Your task to perform on an android device: Open Google Chrome and click the shortcut for Amazon.com Image 0: 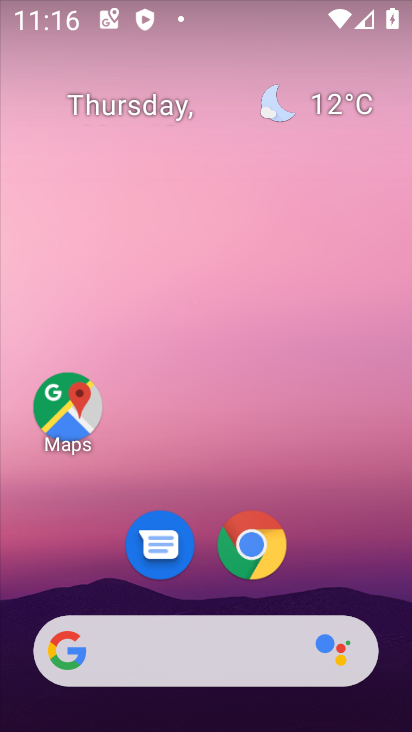
Step 0: click (227, 549)
Your task to perform on an android device: Open Google Chrome and click the shortcut for Amazon.com Image 1: 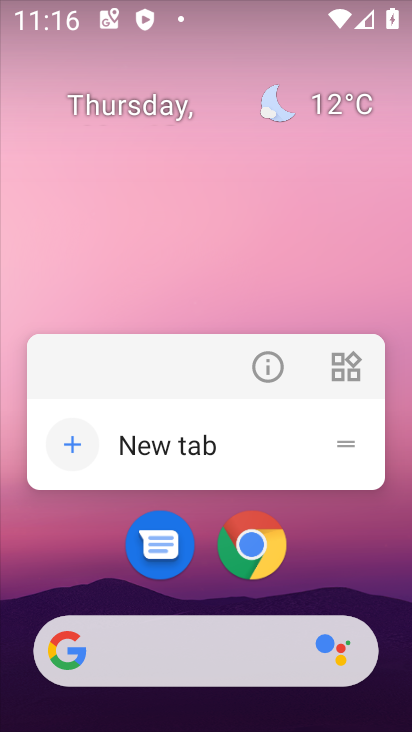
Step 1: click (243, 554)
Your task to perform on an android device: Open Google Chrome and click the shortcut for Amazon.com Image 2: 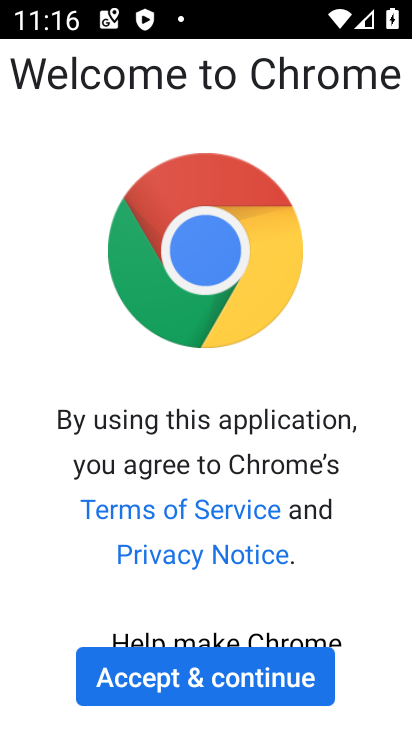
Step 2: click (249, 678)
Your task to perform on an android device: Open Google Chrome and click the shortcut for Amazon.com Image 3: 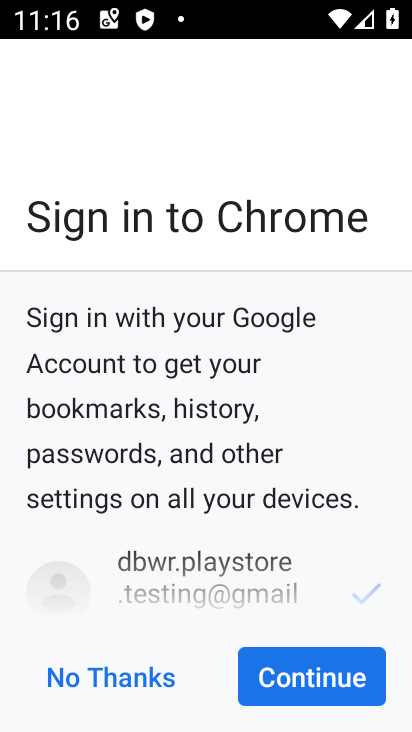
Step 3: click (280, 686)
Your task to perform on an android device: Open Google Chrome and click the shortcut for Amazon.com Image 4: 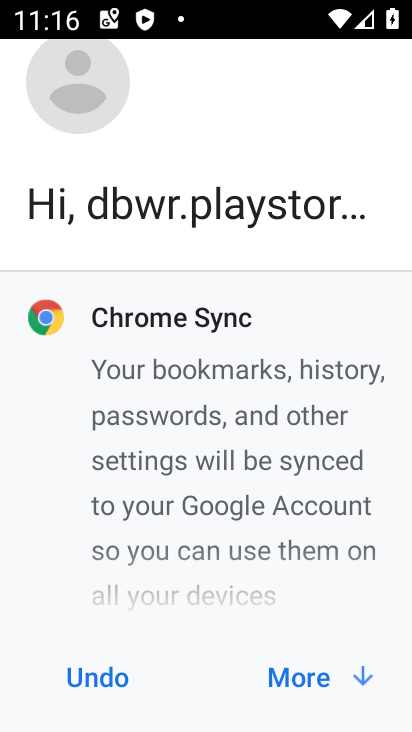
Step 4: click (280, 686)
Your task to perform on an android device: Open Google Chrome and click the shortcut for Amazon.com Image 5: 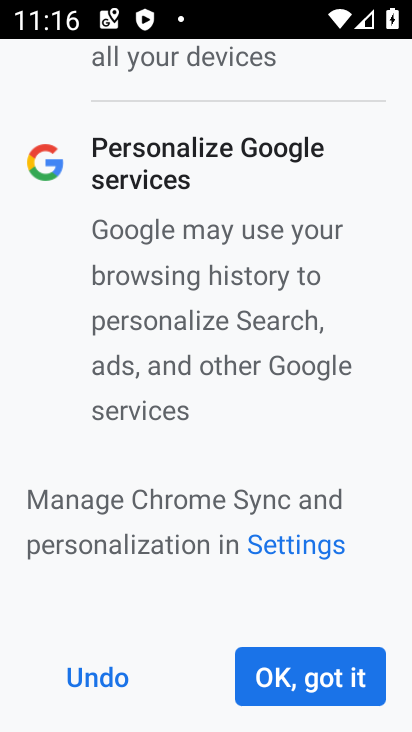
Step 5: click (280, 686)
Your task to perform on an android device: Open Google Chrome and click the shortcut for Amazon.com Image 6: 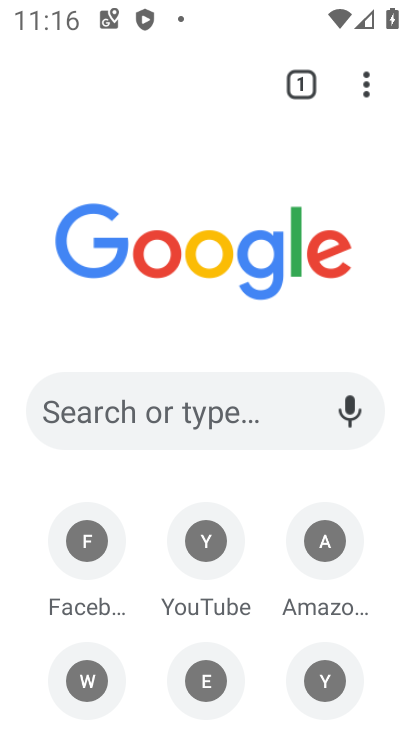
Step 6: drag from (282, 657) to (325, 487)
Your task to perform on an android device: Open Google Chrome and click the shortcut for Amazon.com Image 7: 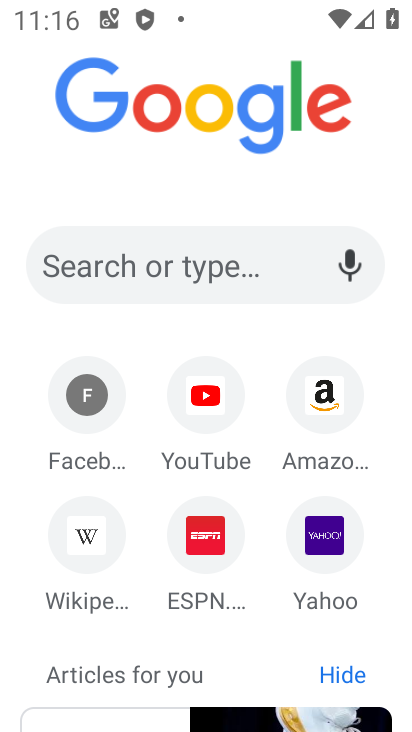
Step 7: click (331, 409)
Your task to perform on an android device: Open Google Chrome and click the shortcut for Amazon.com Image 8: 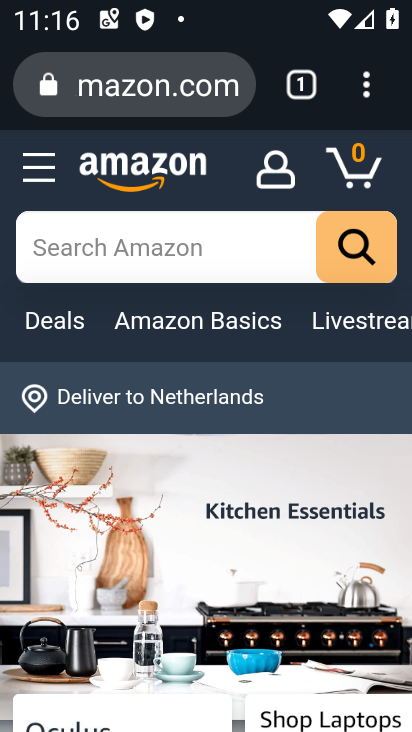
Step 8: task complete